Your task to perform on an android device: add a contact in the contacts app Image 0: 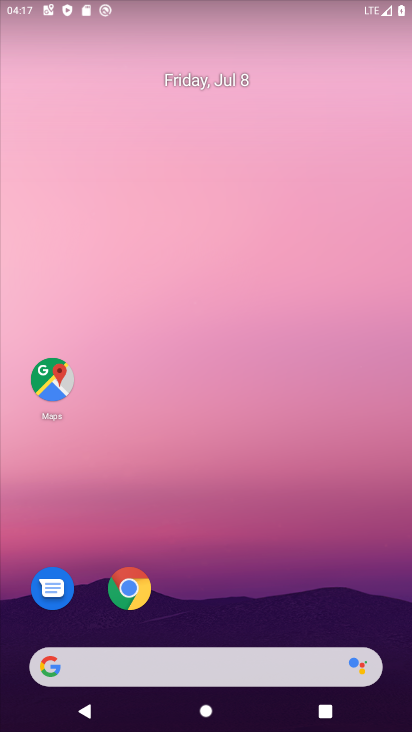
Step 0: drag from (200, 538) to (241, 108)
Your task to perform on an android device: add a contact in the contacts app Image 1: 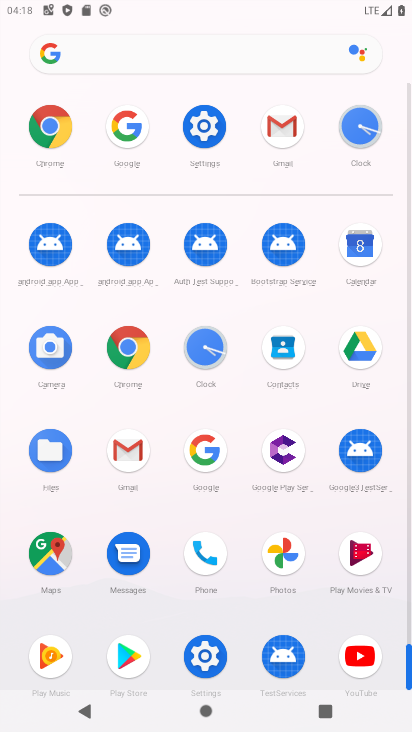
Step 1: click (293, 354)
Your task to perform on an android device: add a contact in the contacts app Image 2: 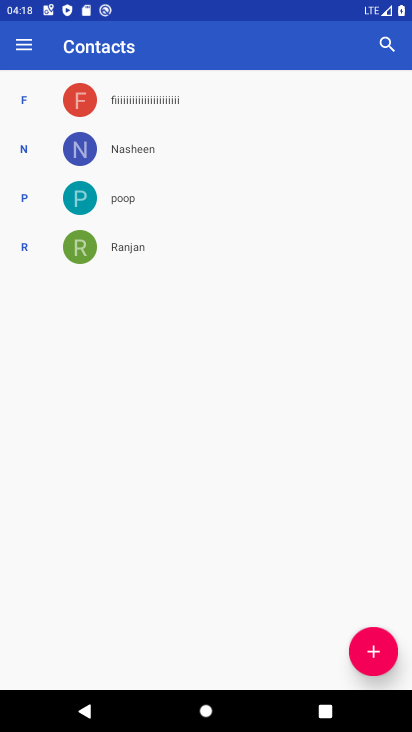
Step 2: click (377, 646)
Your task to perform on an android device: add a contact in the contacts app Image 3: 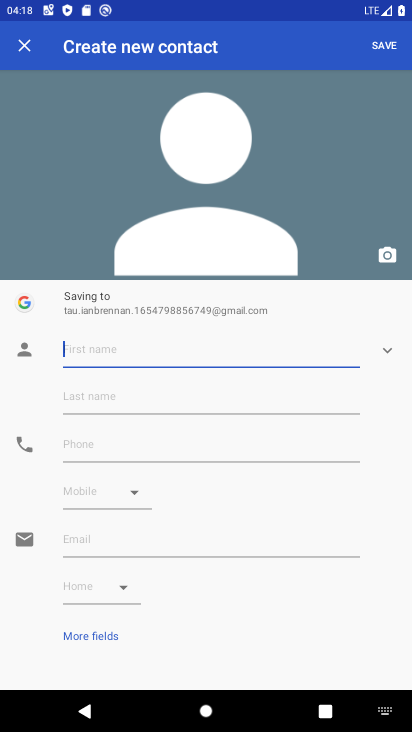
Step 3: type "nimrit"
Your task to perform on an android device: add a contact in the contacts app Image 4: 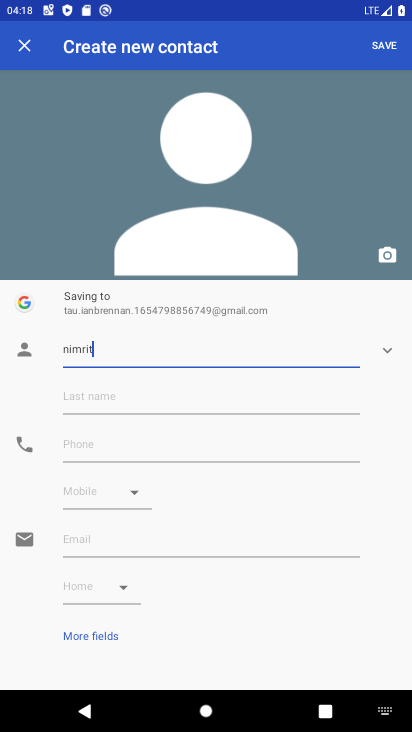
Step 4: click (296, 448)
Your task to perform on an android device: add a contact in the contacts app Image 5: 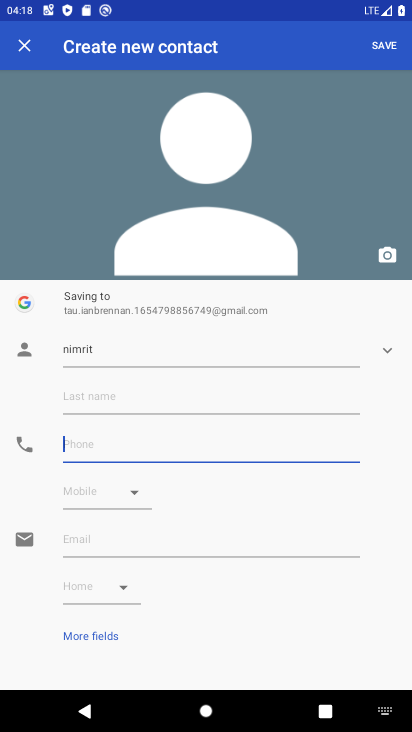
Step 5: type "8778878899"
Your task to perform on an android device: add a contact in the contacts app Image 6: 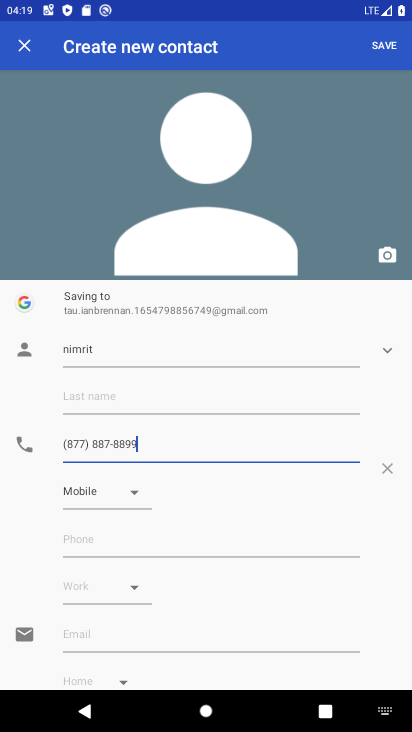
Step 6: click (381, 44)
Your task to perform on an android device: add a contact in the contacts app Image 7: 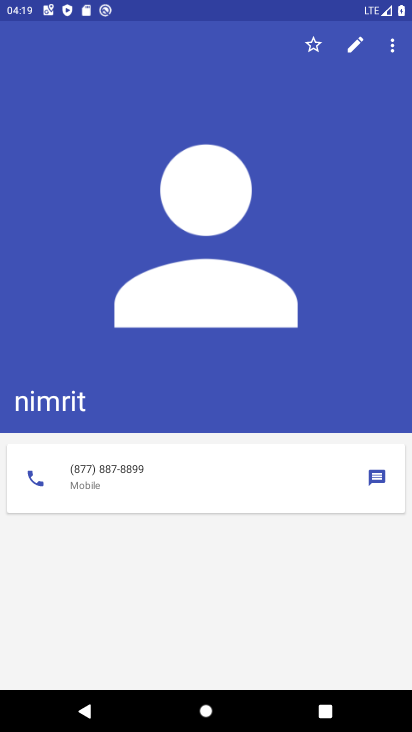
Step 7: task complete